Your task to perform on an android device: open chrome privacy settings Image 0: 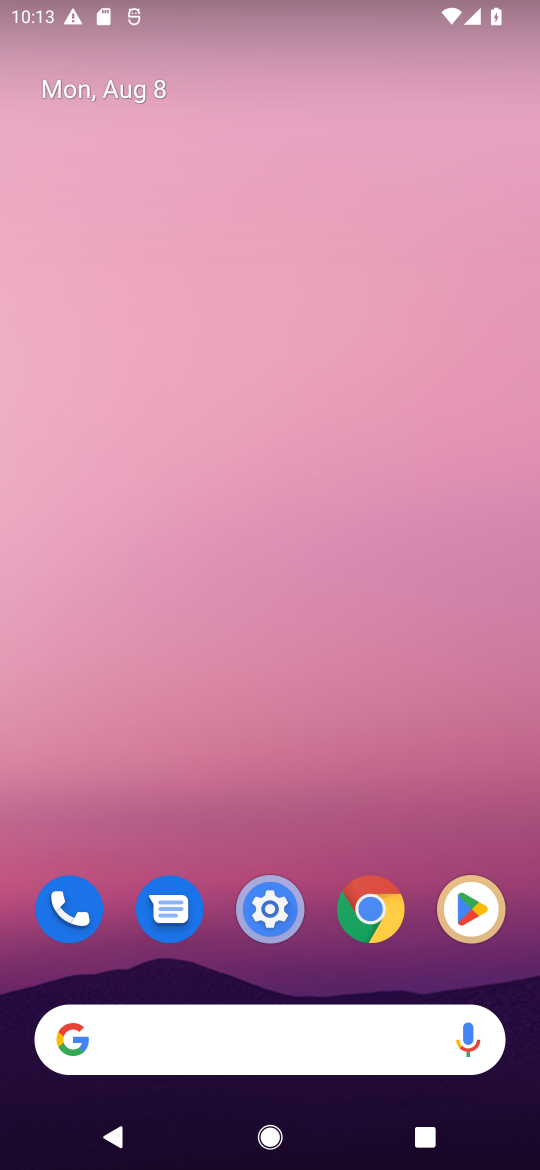
Step 0: click (375, 895)
Your task to perform on an android device: open chrome privacy settings Image 1: 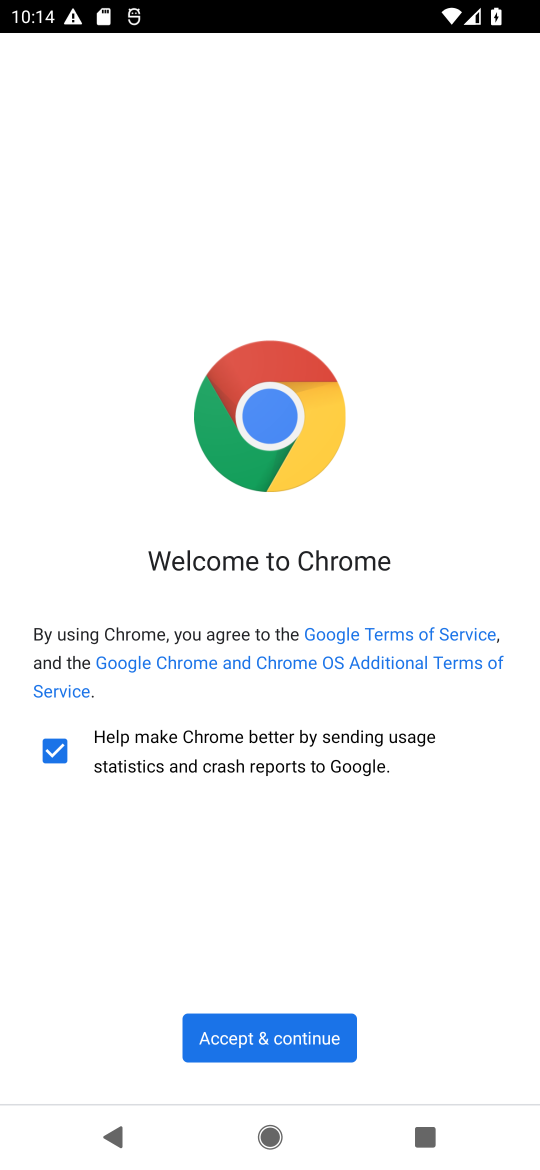
Step 1: click (320, 1045)
Your task to perform on an android device: open chrome privacy settings Image 2: 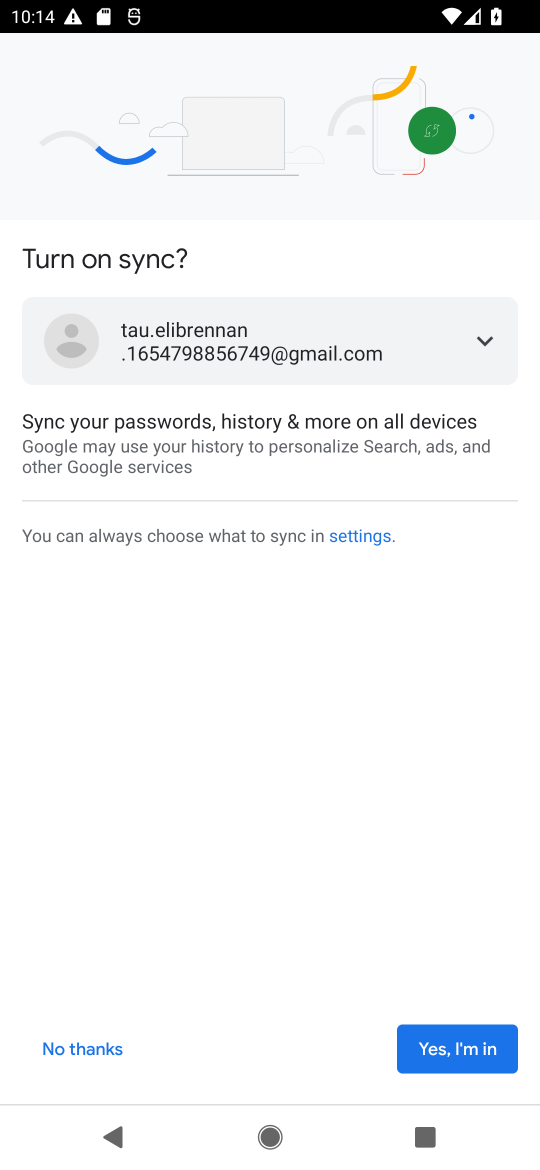
Step 2: click (415, 1046)
Your task to perform on an android device: open chrome privacy settings Image 3: 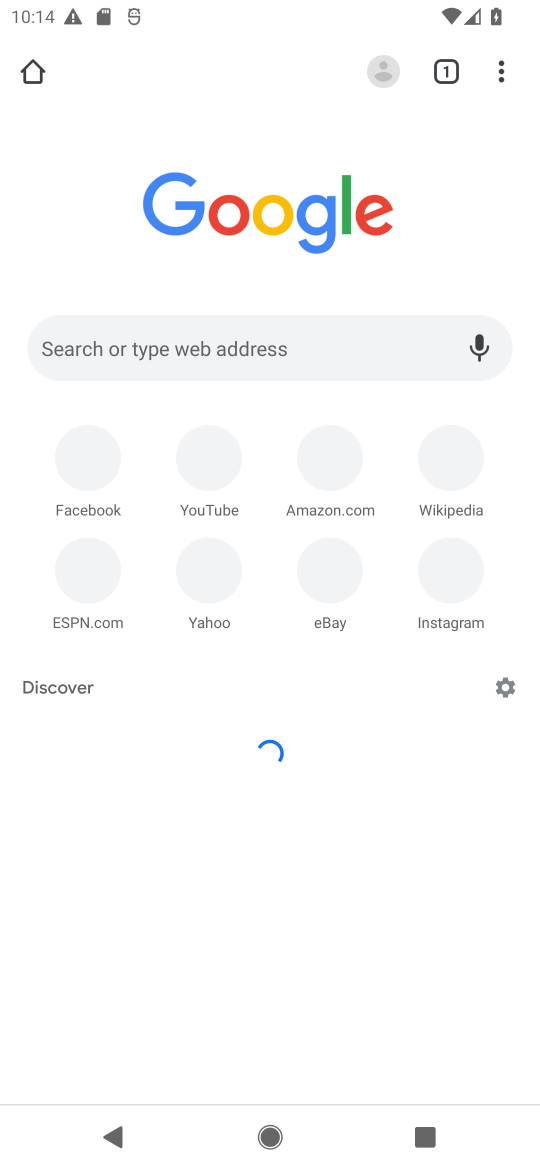
Step 3: click (496, 73)
Your task to perform on an android device: open chrome privacy settings Image 4: 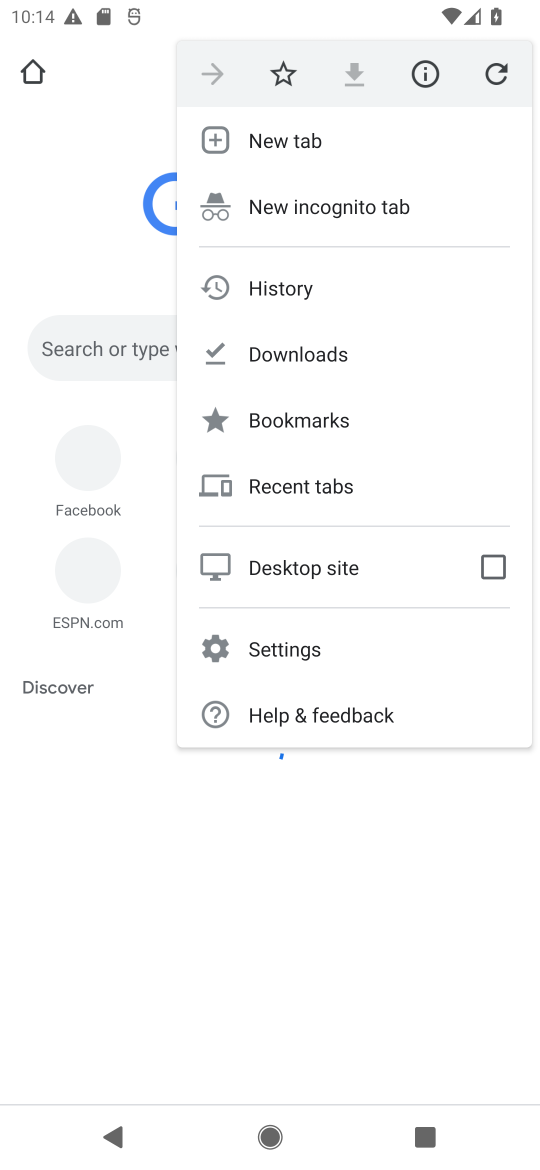
Step 4: click (336, 647)
Your task to perform on an android device: open chrome privacy settings Image 5: 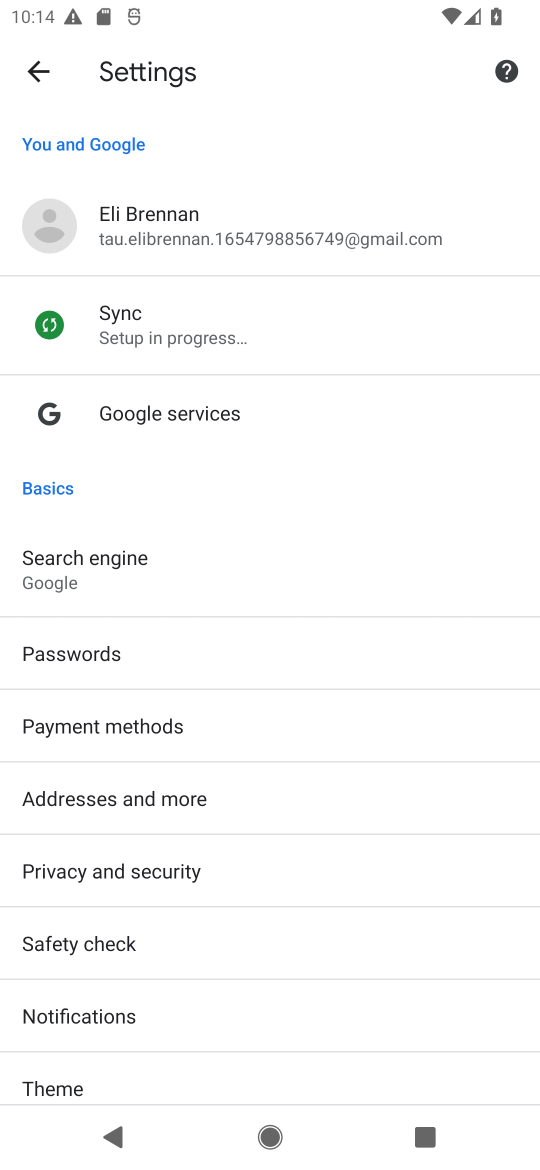
Step 5: drag from (282, 980) to (277, 446)
Your task to perform on an android device: open chrome privacy settings Image 6: 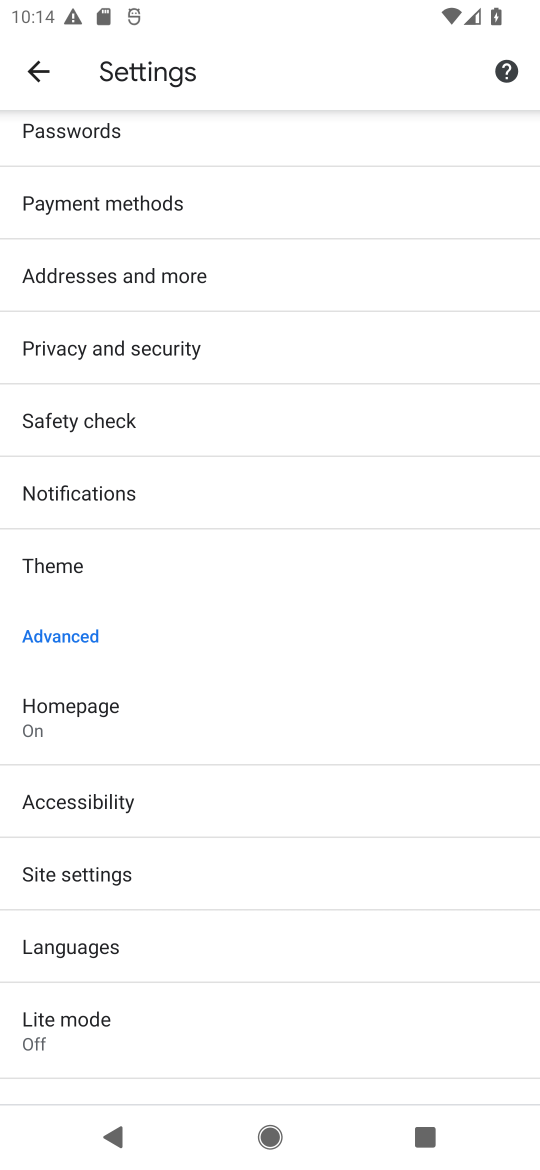
Step 6: click (182, 336)
Your task to perform on an android device: open chrome privacy settings Image 7: 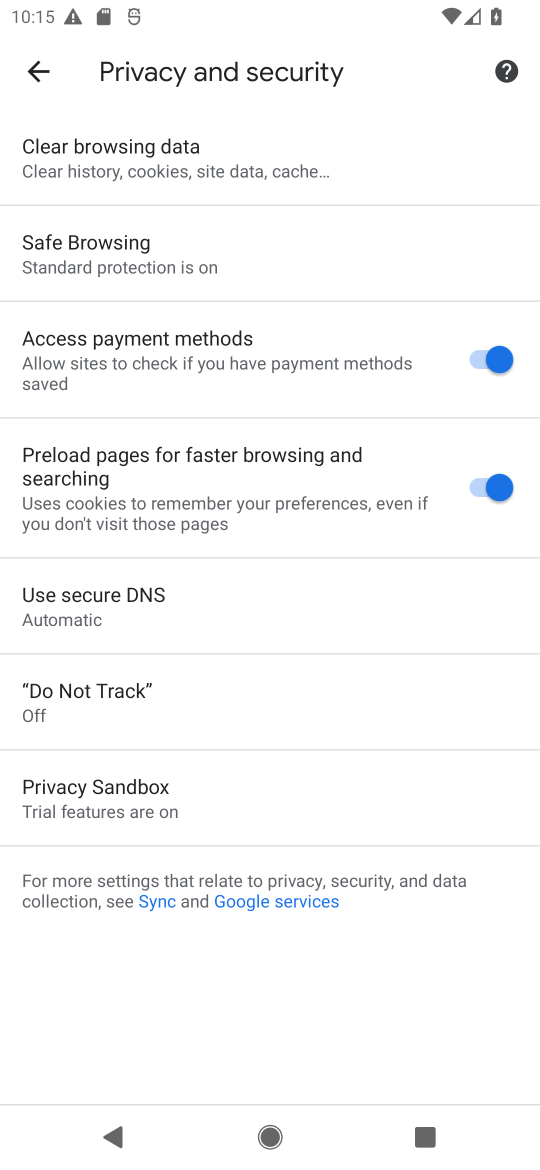
Step 7: task complete